Your task to perform on an android device: Open Youtube and go to the subscriptions tab Image 0: 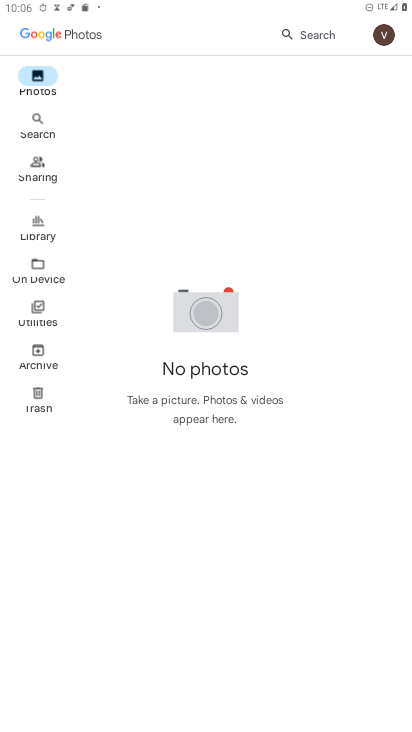
Step 0: press home button
Your task to perform on an android device: Open Youtube and go to the subscriptions tab Image 1: 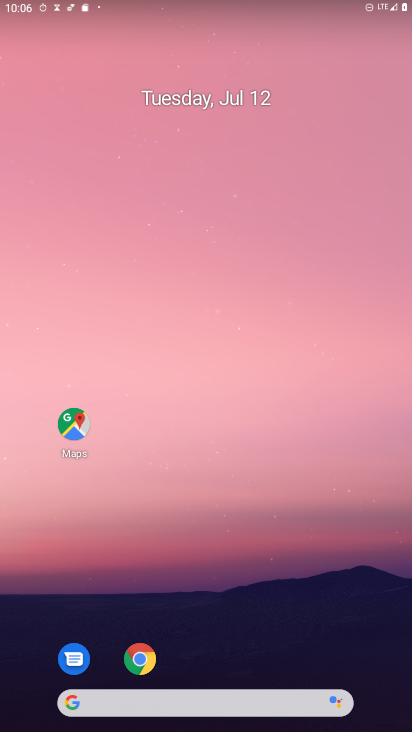
Step 1: drag from (203, 708) to (224, 61)
Your task to perform on an android device: Open Youtube and go to the subscriptions tab Image 2: 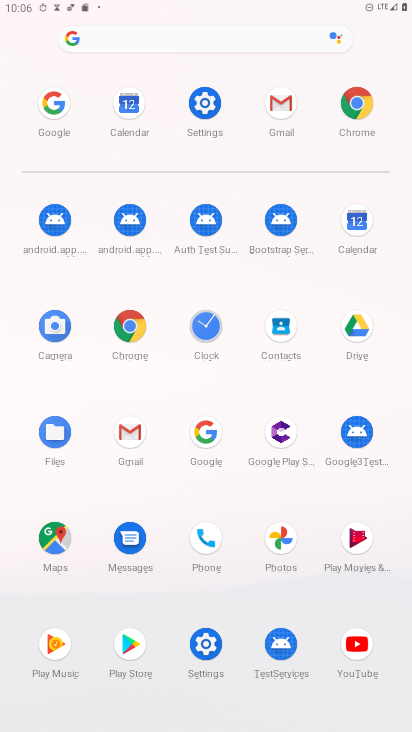
Step 2: click (358, 643)
Your task to perform on an android device: Open Youtube and go to the subscriptions tab Image 3: 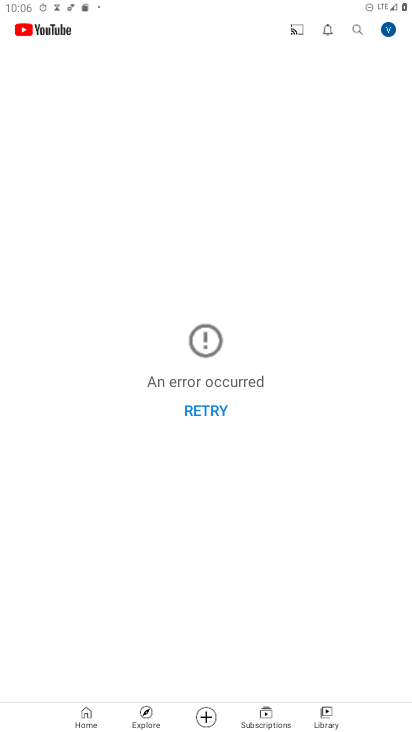
Step 3: click (265, 721)
Your task to perform on an android device: Open Youtube and go to the subscriptions tab Image 4: 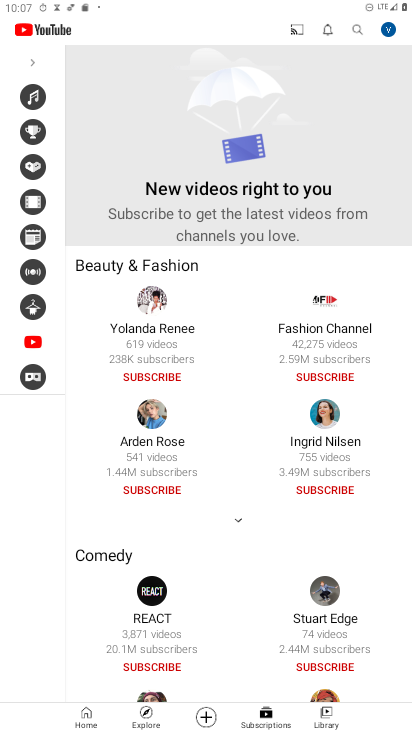
Step 4: task complete